Your task to perform on an android device: Open Youtube and go to the subscriptions tab Image 0: 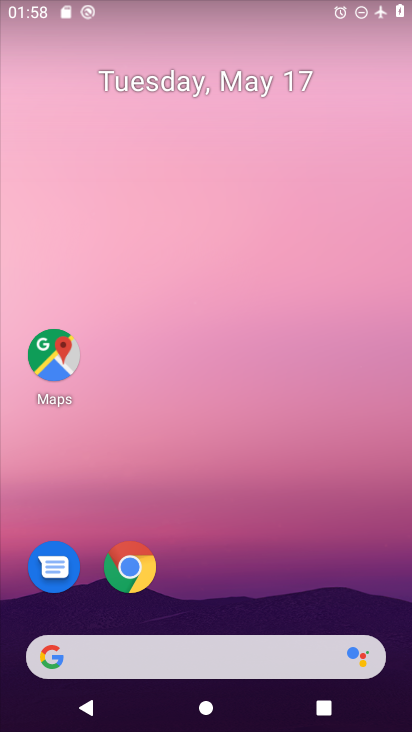
Step 0: drag from (286, 553) to (193, 38)
Your task to perform on an android device: Open Youtube and go to the subscriptions tab Image 1: 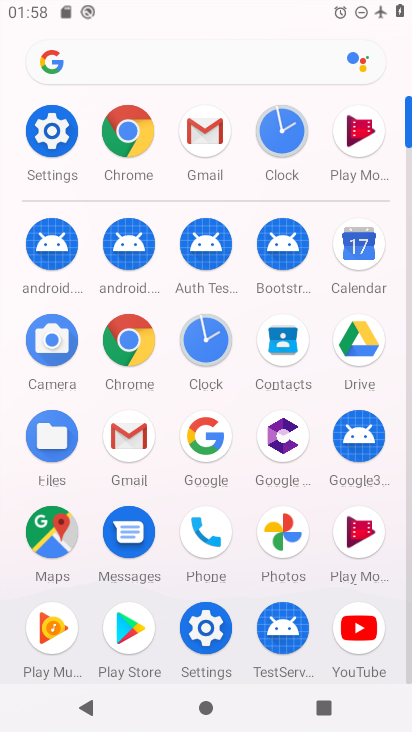
Step 1: click (356, 621)
Your task to perform on an android device: Open Youtube and go to the subscriptions tab Image 2: 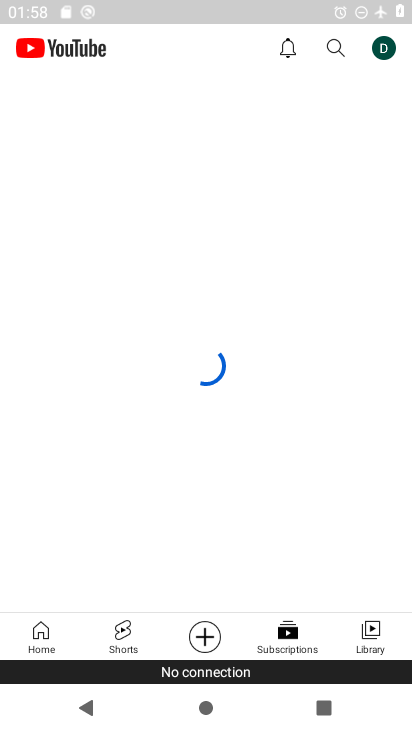
Step 2: click (287, 628)
Your task to perform on an android device: Open Youtube and go to the subscriptions tab Image 3: 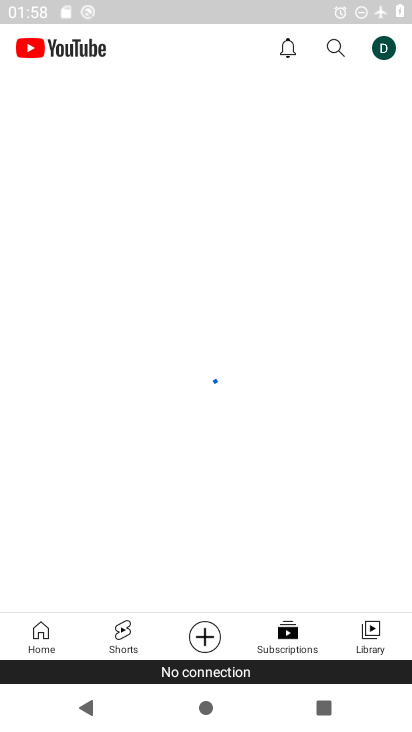
Step 3: task complete